Your task to perform on an android device: Add macbook air to the cart on amazon.com Image 0: 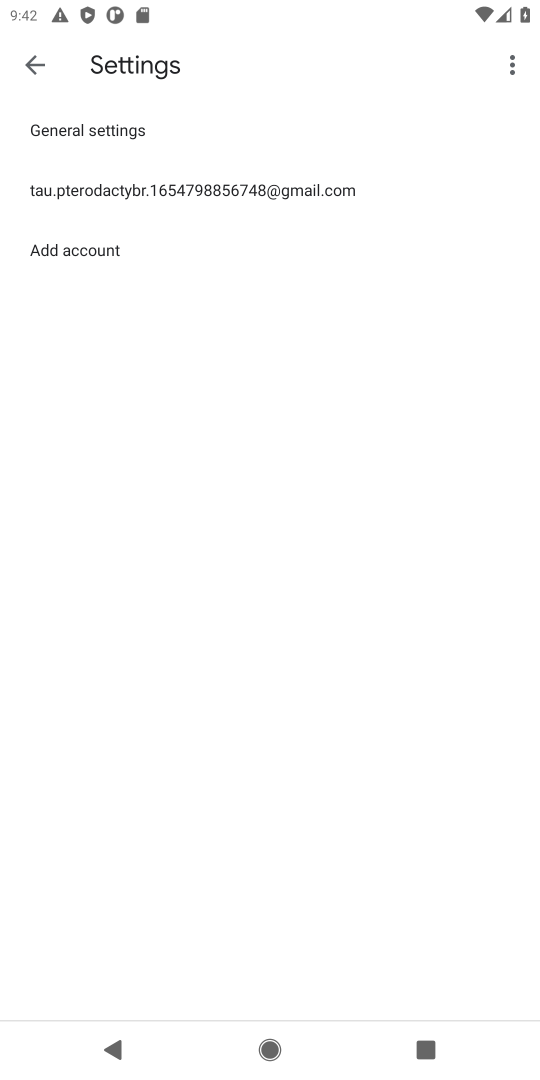
Step 0: task complete